Your task to perform on an android device: see tabs open on other devices in the chrome app Image 0: 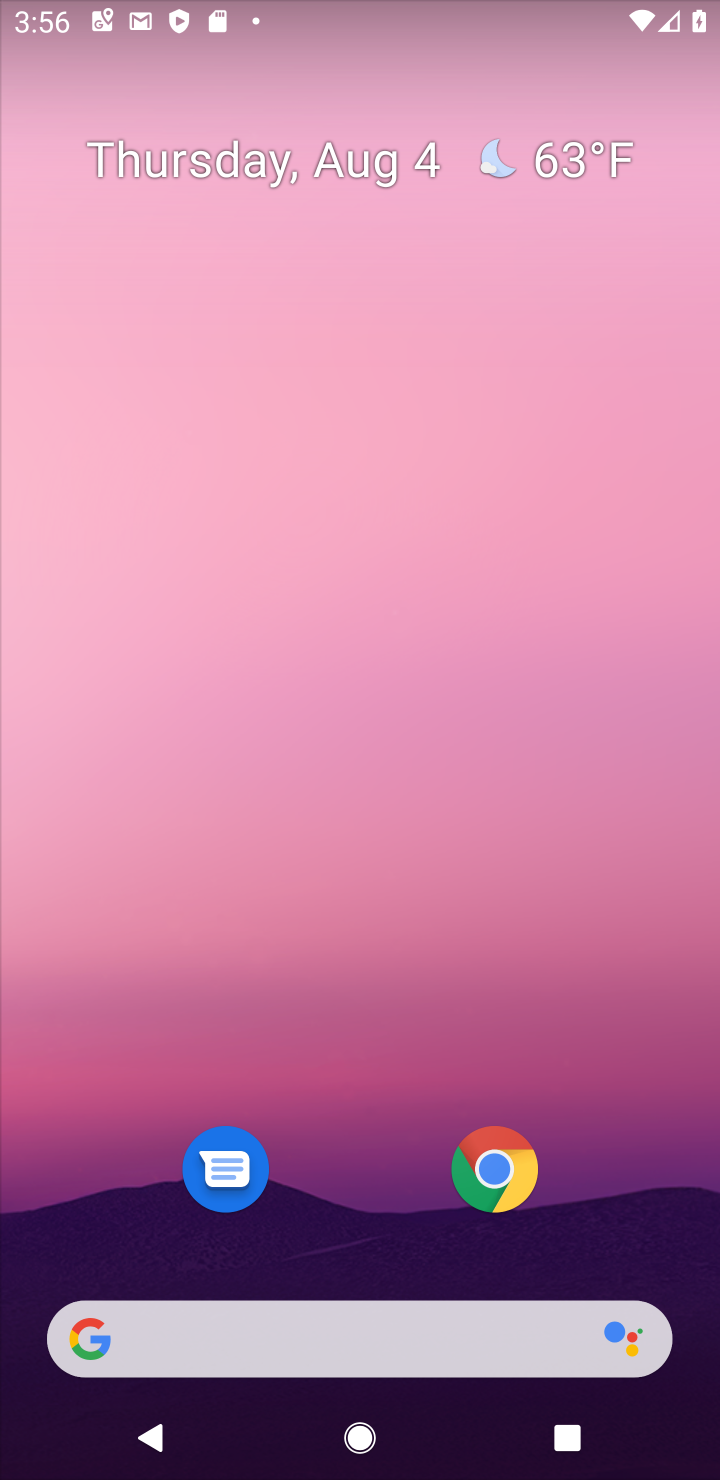
Step 0: click (482, 1164)
Your task to perform on an android device: see tabs open on other devices in the chrome app Image 1: 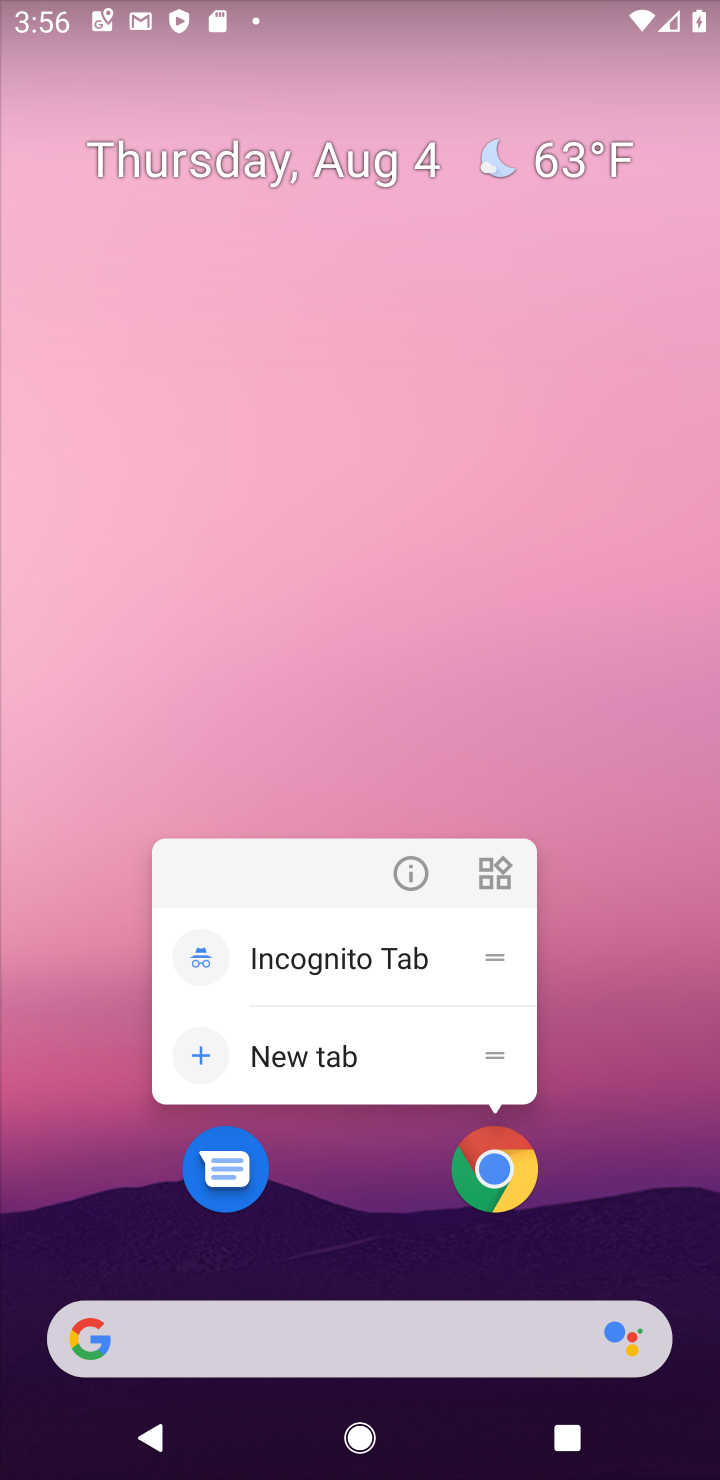
Step 1: click (482, 1152)
Your task to perform on an android device: see tabs open on other devices in the chrome app Image 2: 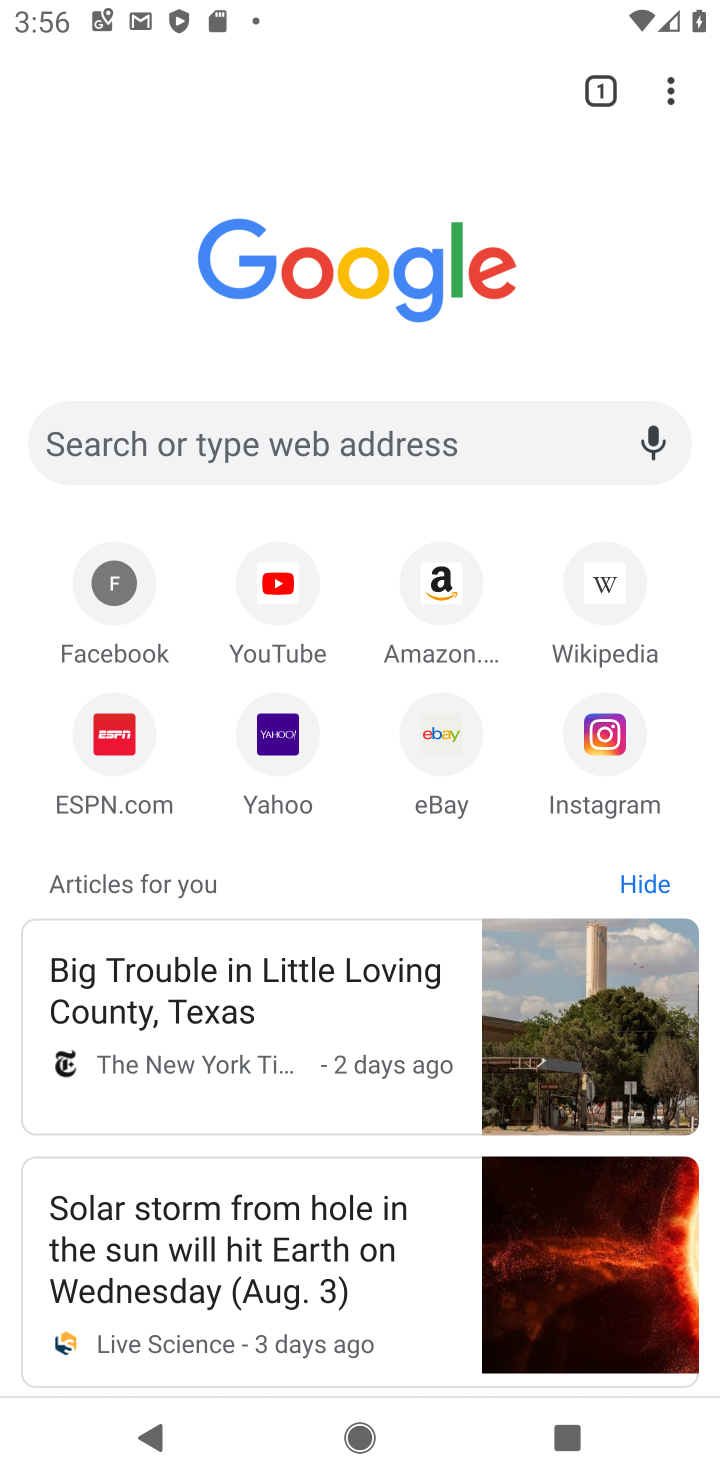
Step 2: click (667, 67)
Your task to perform on an android device: see tabs open on other devices in the chrome app Image 3: 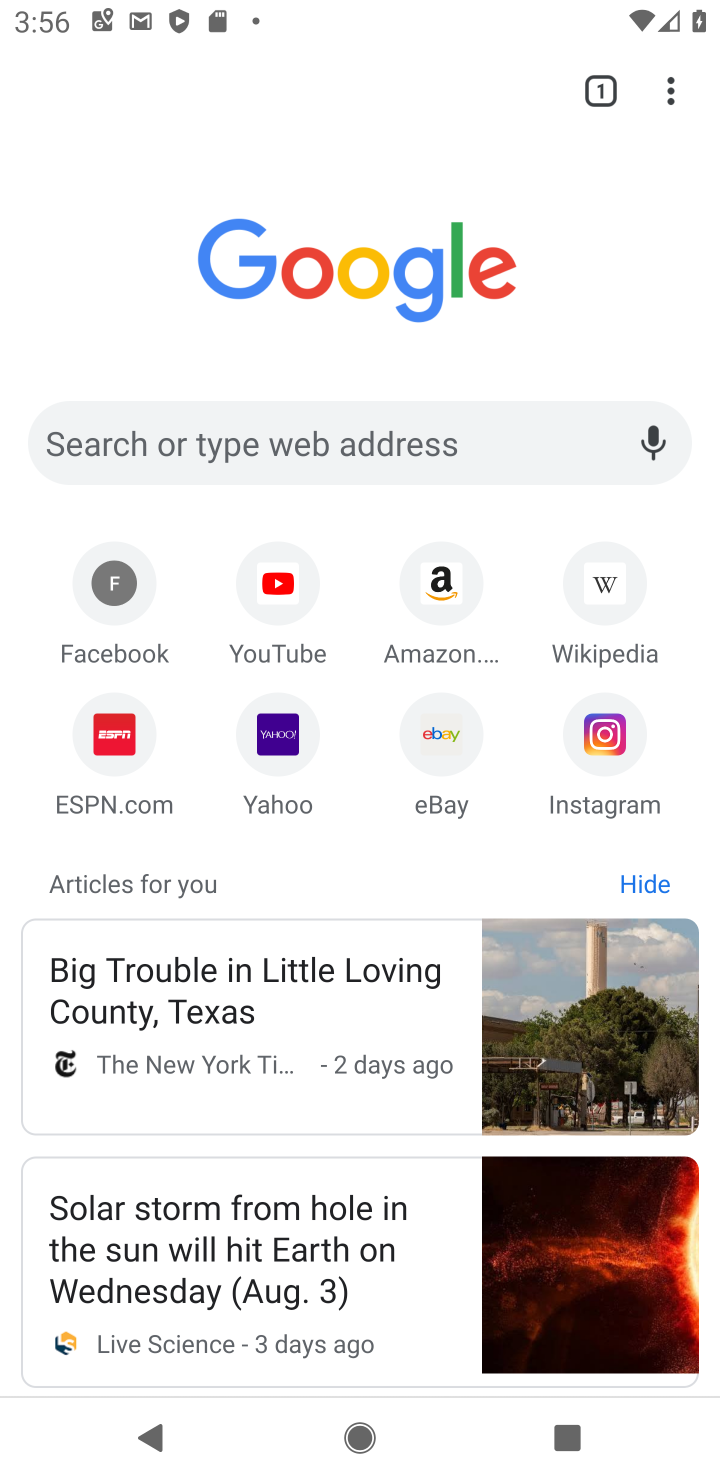
Step 3: click (669, 77)
Your task to perform on an android device: see tabs open on other devices in the chrome app Image 4: 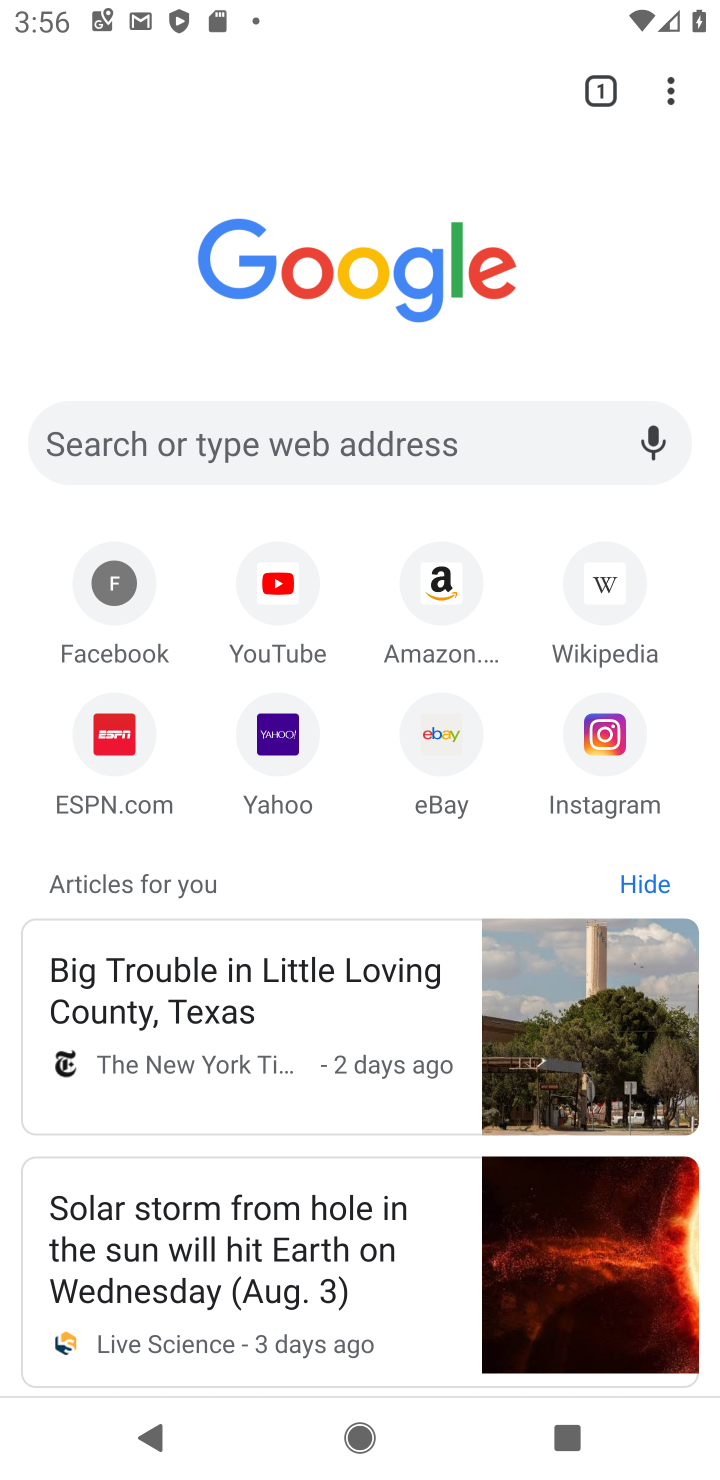
Step 4: click (676, 69)
Your task to perform on an android device: see tabs open on other devices in the chrome app Image 5: 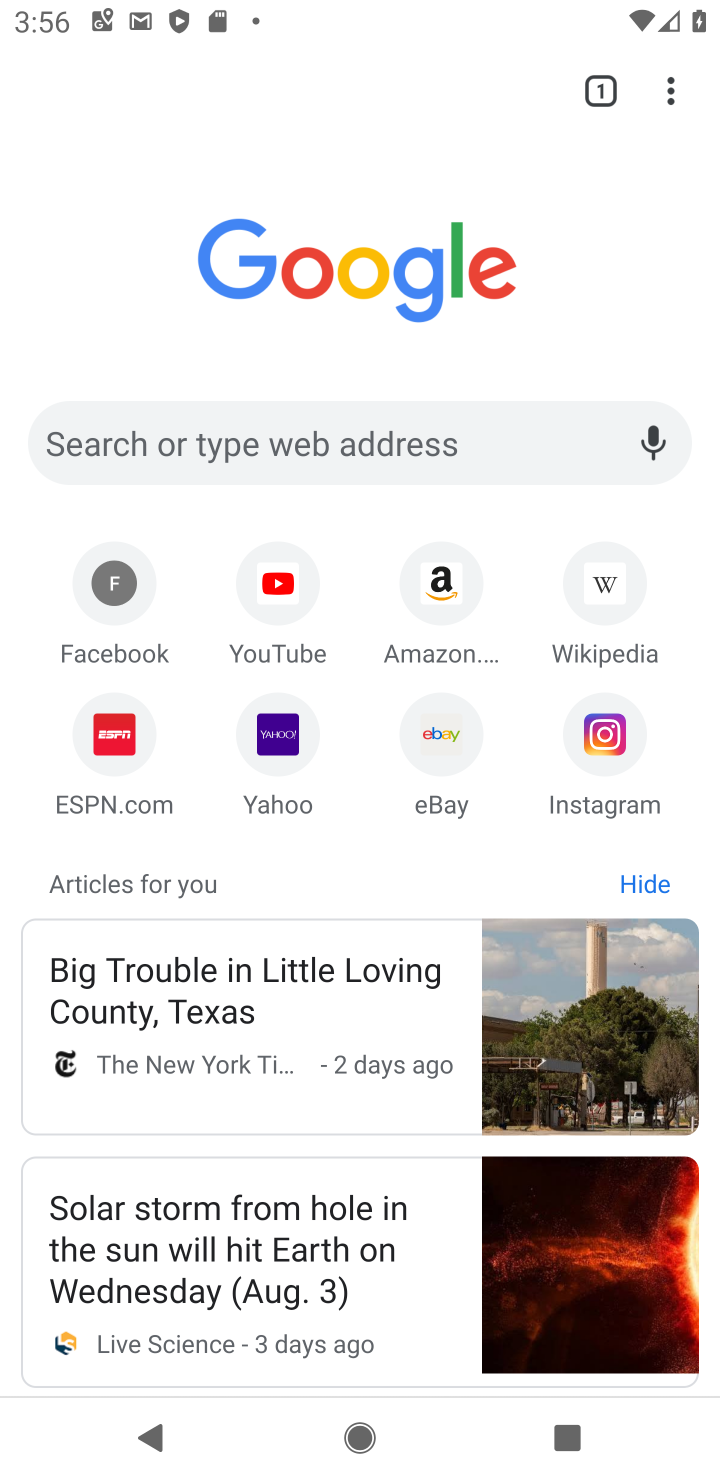
Step 5: click (666, 107)
Your task to perform on an android device: see tabs open on other devices in the chrome app Image 6: 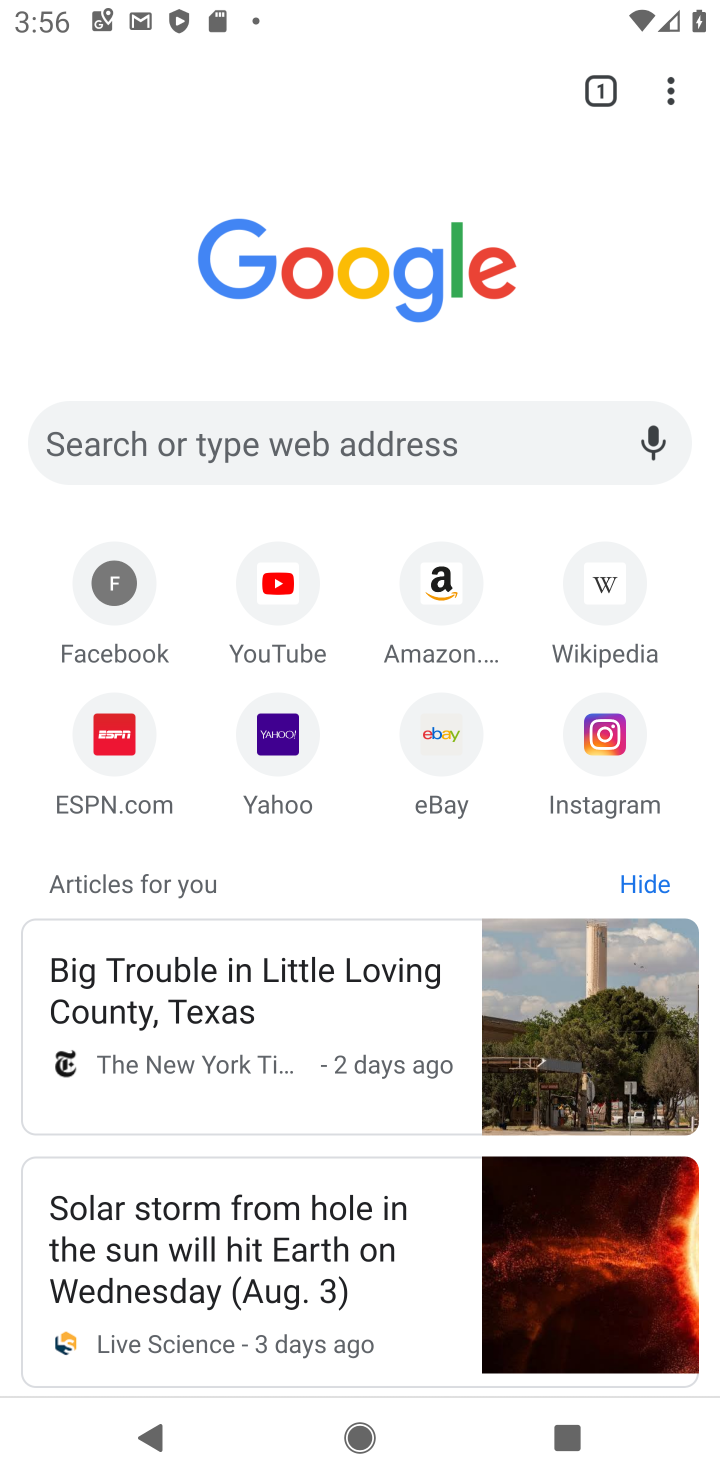
Step 6: click (669, 93)
Your task to perform on an android device: see tabs open on other devices in the chrome app Image 7: 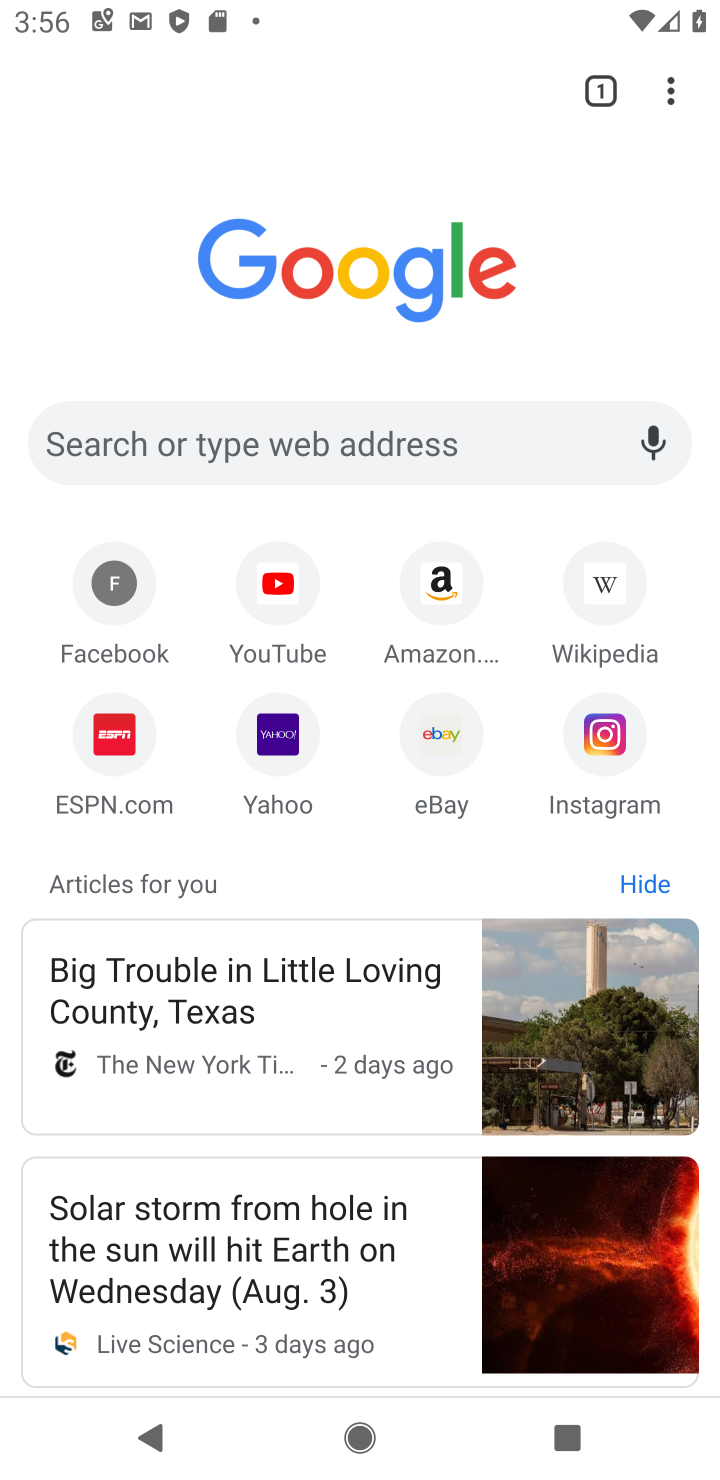
Step 7: click (673, 105)
Your task to perform on an android device: see tabs open on other devices in the chrome app Image 8: 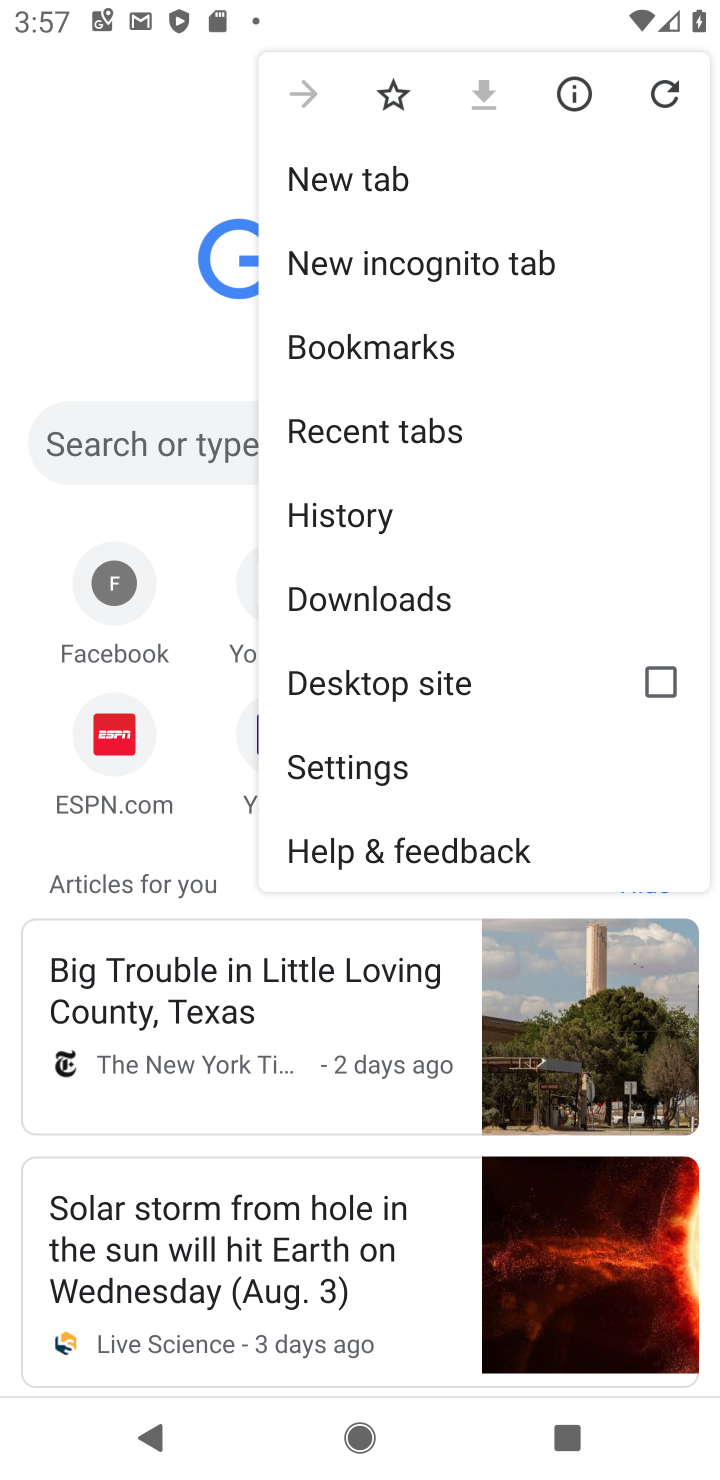
Step 8: click (397, 434)
Your task to perform on an android device: see tabs open on other devices in the chrome app Image 9: 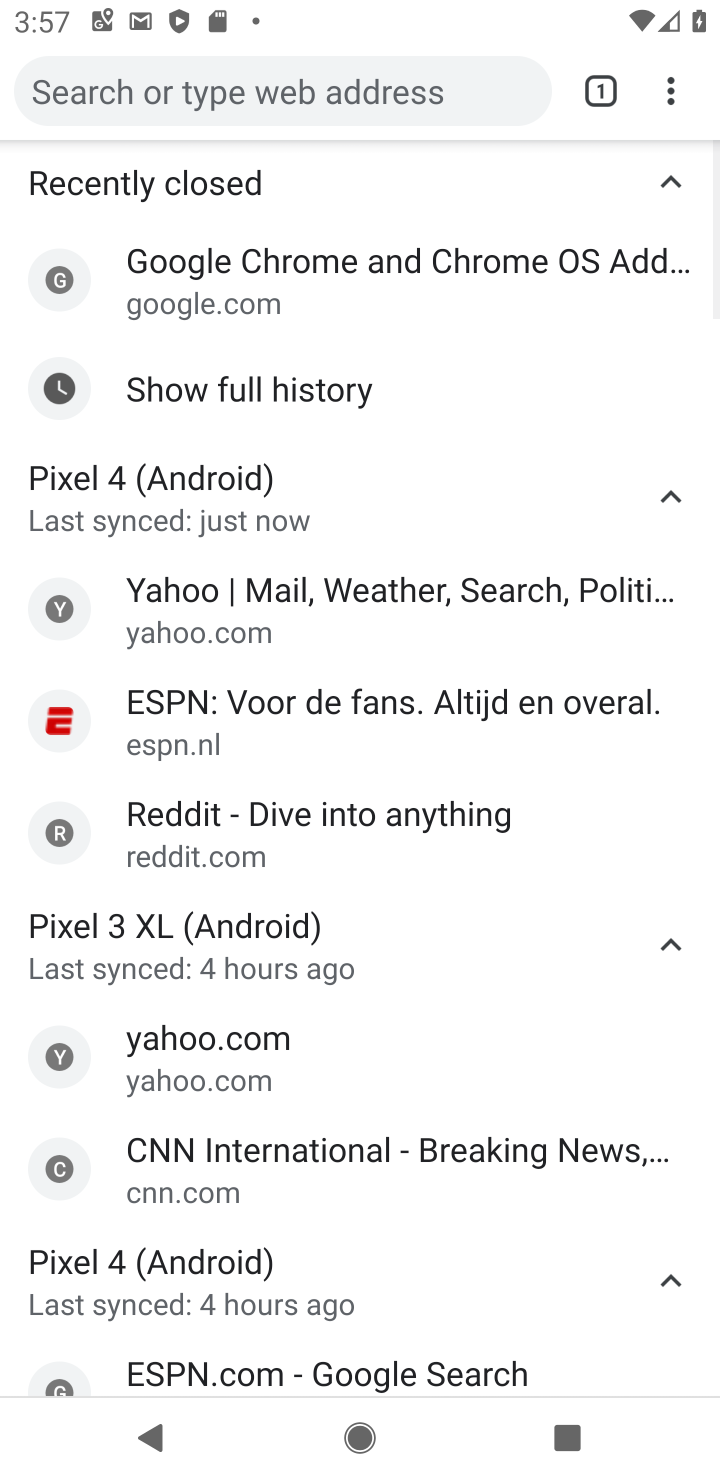
Step 9: task complete